Your task to perform on an android device: Look up the best rated pressure washer on Home Depot. Image 0: 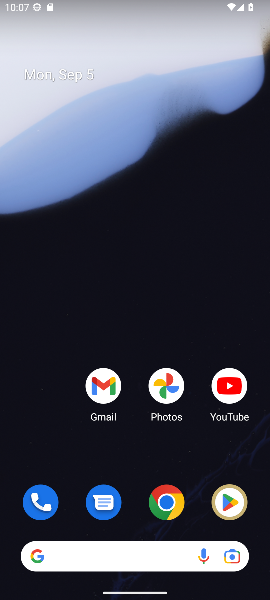
Step 0: drag from (215, 114) to (199, 62)
Your task to perform on an android device: Look up the best rated pressure washer on Home Depot. Image 1: 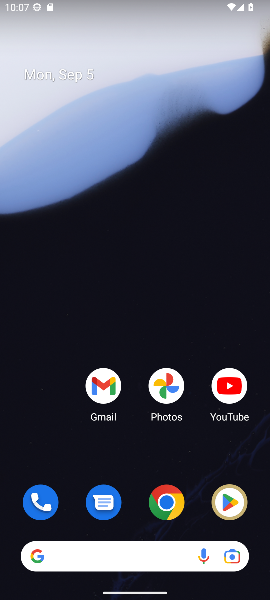
Step 1: drag from (259, 492) to (148, 18)
Your task to perform on an android device: Look up the best rated pressure washer on Home Depot. Image 2: 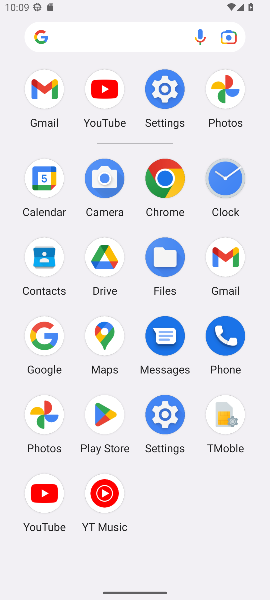
Step 2: click (44, 343)
Your task to perform on an android device: Look up the best rated pressure washer on Home Depot. Image 3: 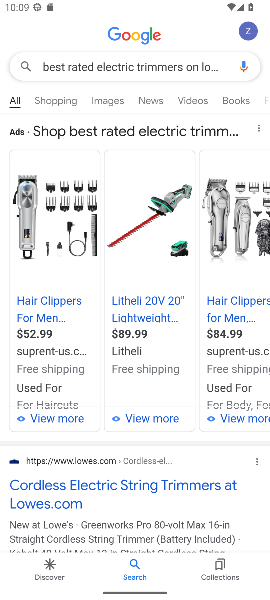
Step 3: press back button
Your task to perform on an android device: Look up the best rated pressure washer on Home Depot. Image 4: 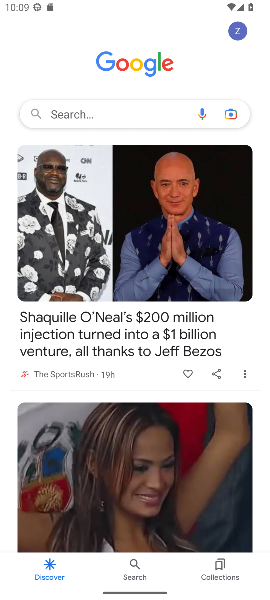
Step 4: click (95, 106)
Your task to perform on an android device: Look up the best rated pressure washer on Home Depot. Image 5: 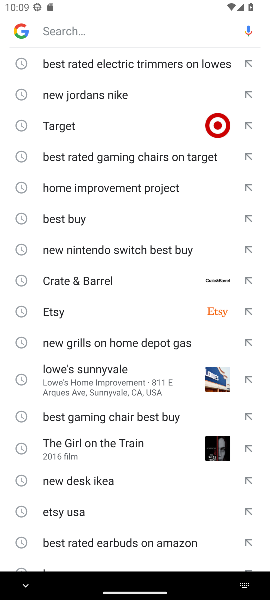
Step 5: type "best rated pressure washer on Home Depot"
Your task to perform on an android device: Look up the best rated pressure washer on Home Depot. Image 6: 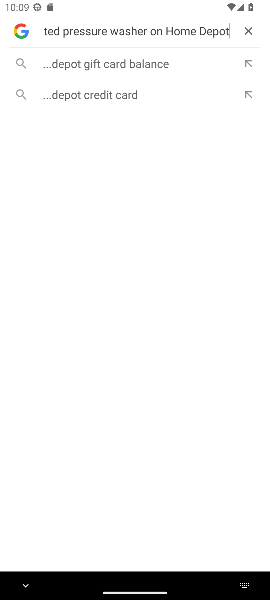
Step 6: click (68, 92)
Your task to perform on an android device: Look up the best rated pressure washer on Home Depot. Image 7: 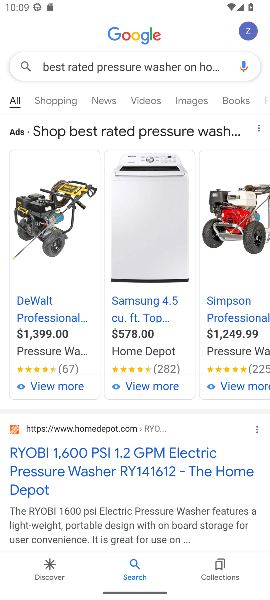
Step 7: task complete